Your task to perform on an android device: open app "HBO Max: Stream TV & Movies" (install if not already installed) Image 0: 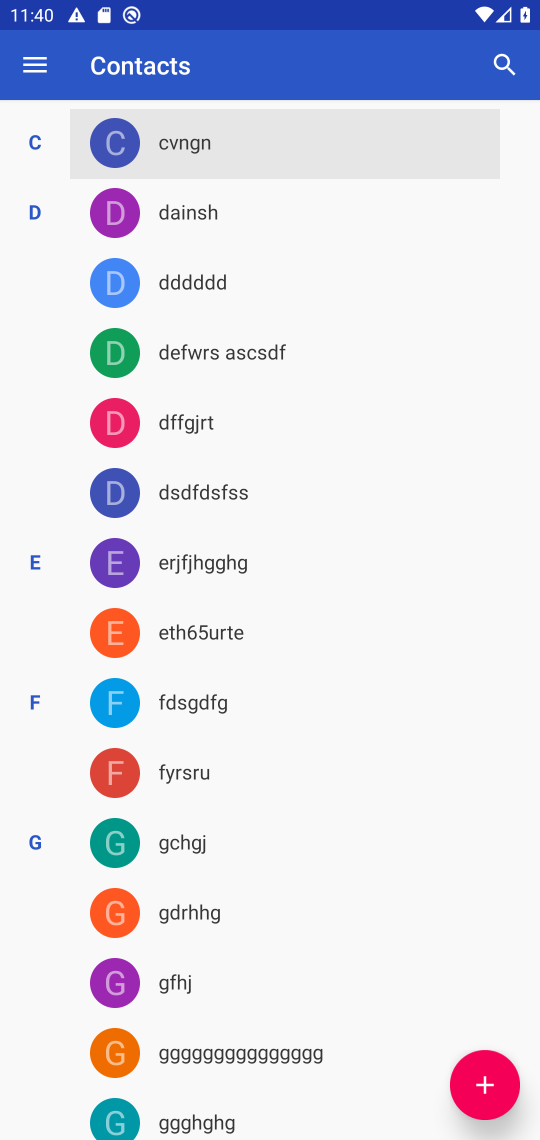
Step 0: press home button
Your task to perform on an android device: open app "HBO Max: Stream TV & Movies" (install if not already installed) Image 1: 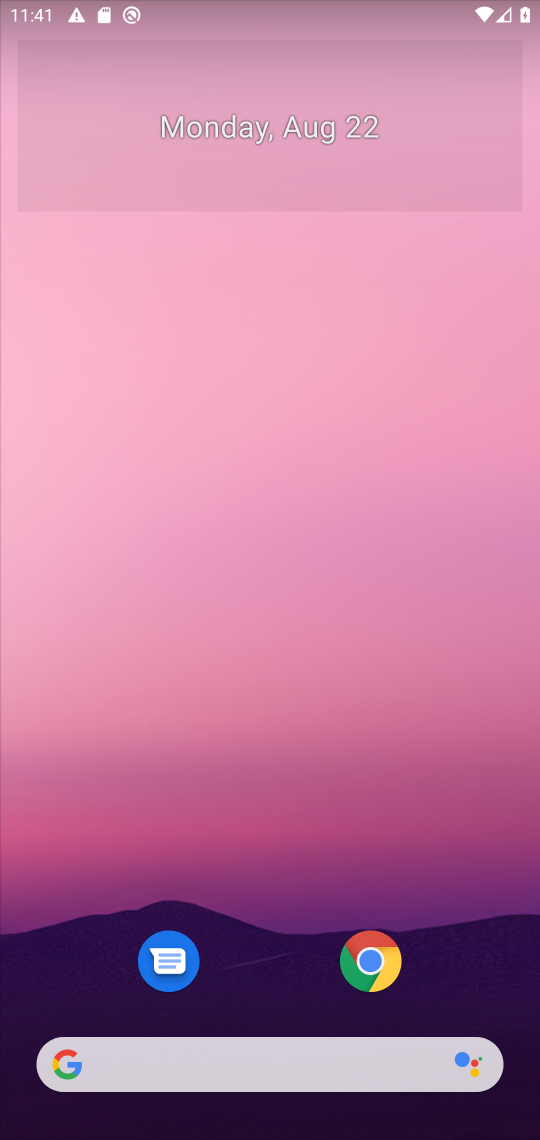
Step 1: drag from (272, 1025) to (333, 281)
Your task to perform on an android device: open app "HBO Max: Stream TV & Movies" (install if not already installed) Image 2: 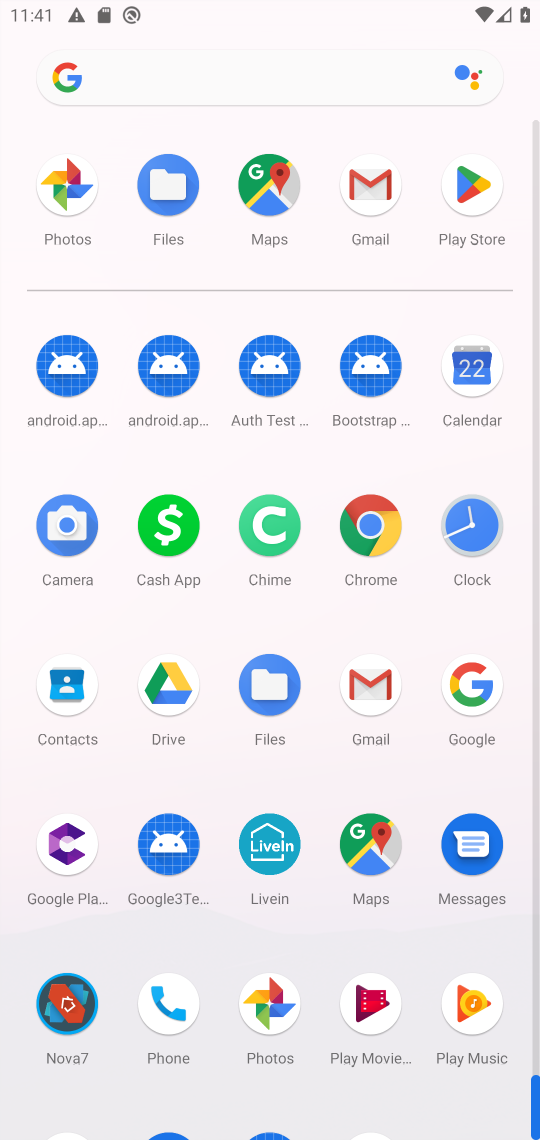
Step 2: click (463, 231)
Your task to perform on an android device: open app "HBO Max: Stream TV & Movies" (install if not already installed) Image 3: 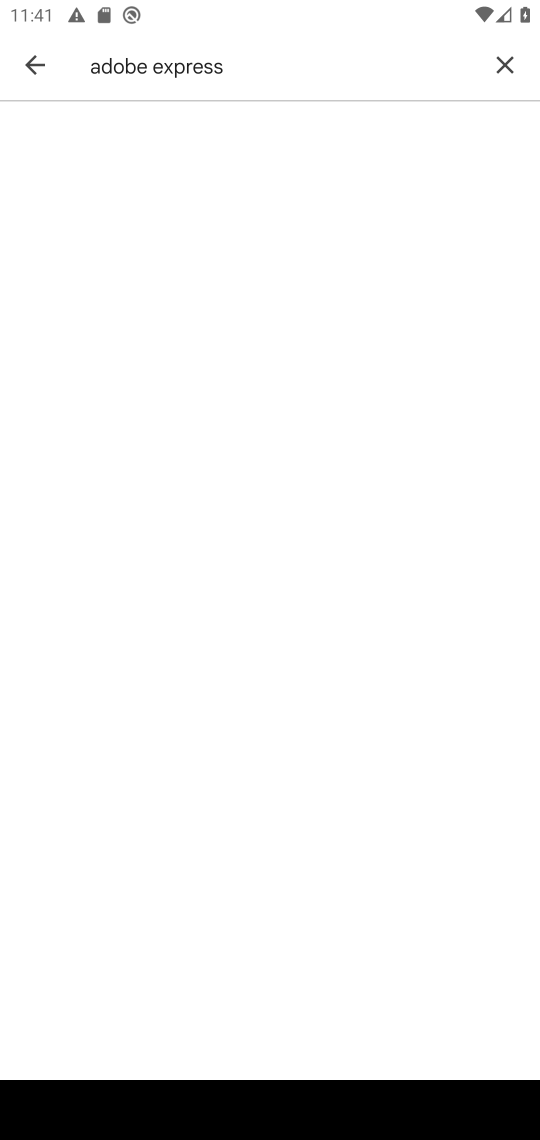
Step 3: click (479, 84)
Your task to perform on an android device: open app "HBO Max: Stream TV & Movies" (install if not already installed) Image 4: 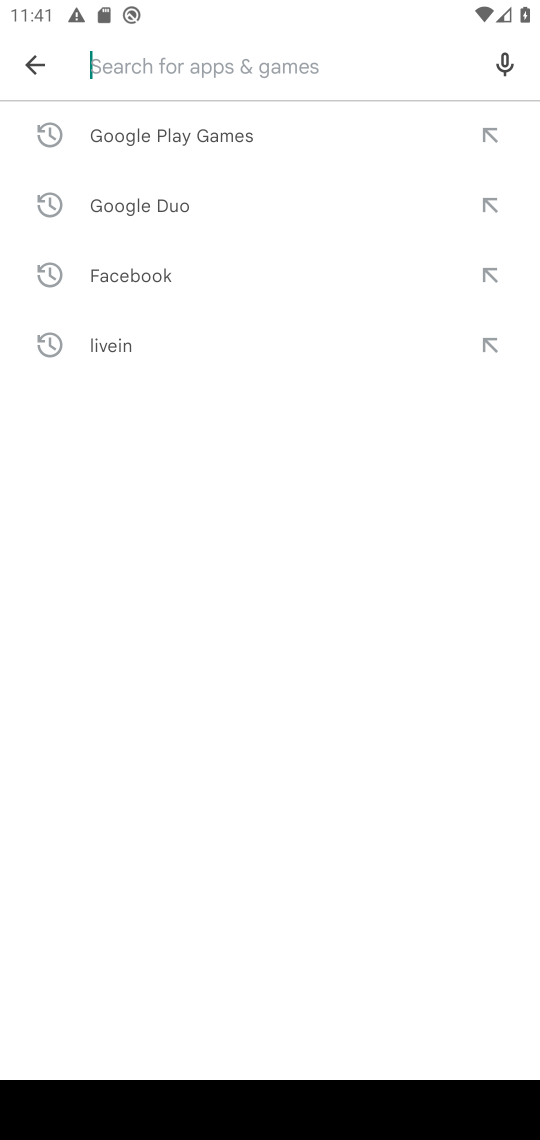
Step 4: click (488, 77)
Your task to perform on an android device: open app "HBO Max: Stream TV & Movies" (install if not already installed) Image 5: 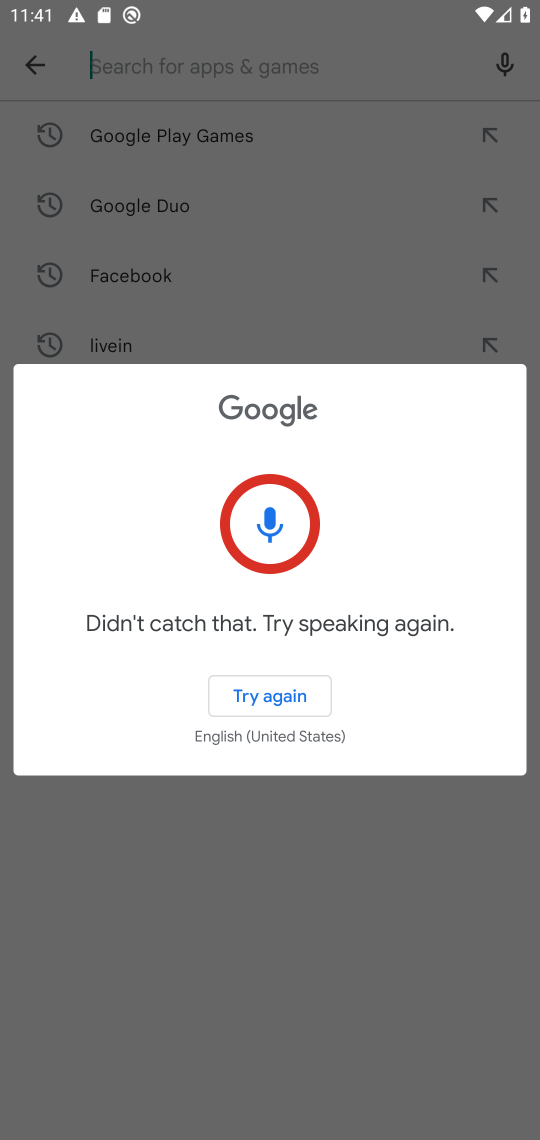
Step 5: type "h"
Your task to perform on an android device: open app "HBO Max: Stream TV & Movies" (install if not already installed) Image 6: 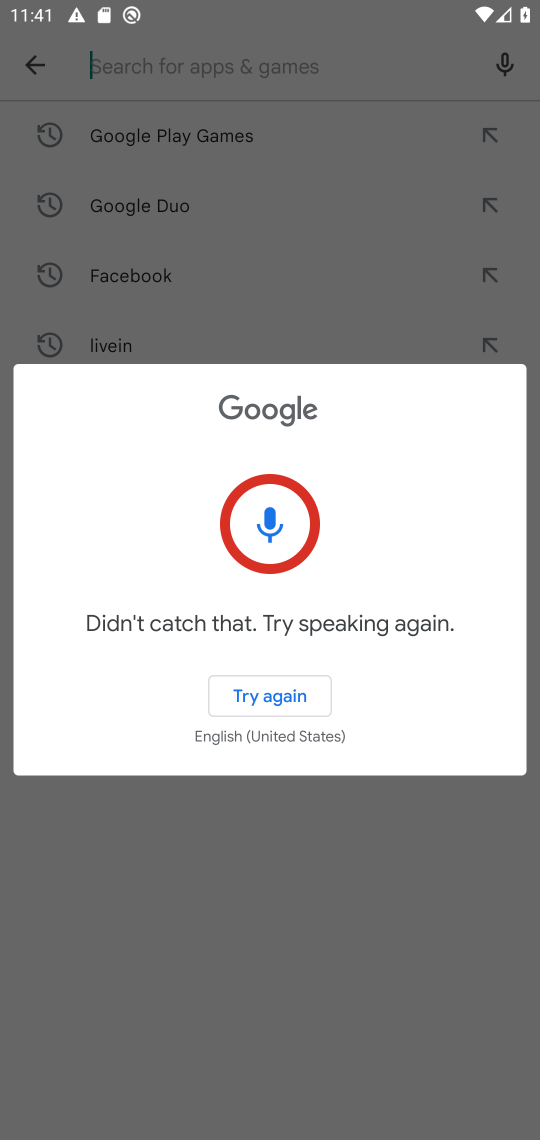
Step 6: click (229, 866)
Your task to perform on an android device: open app "HBO Max: Stream TV & Movies" (install if not already installed) Image 7: 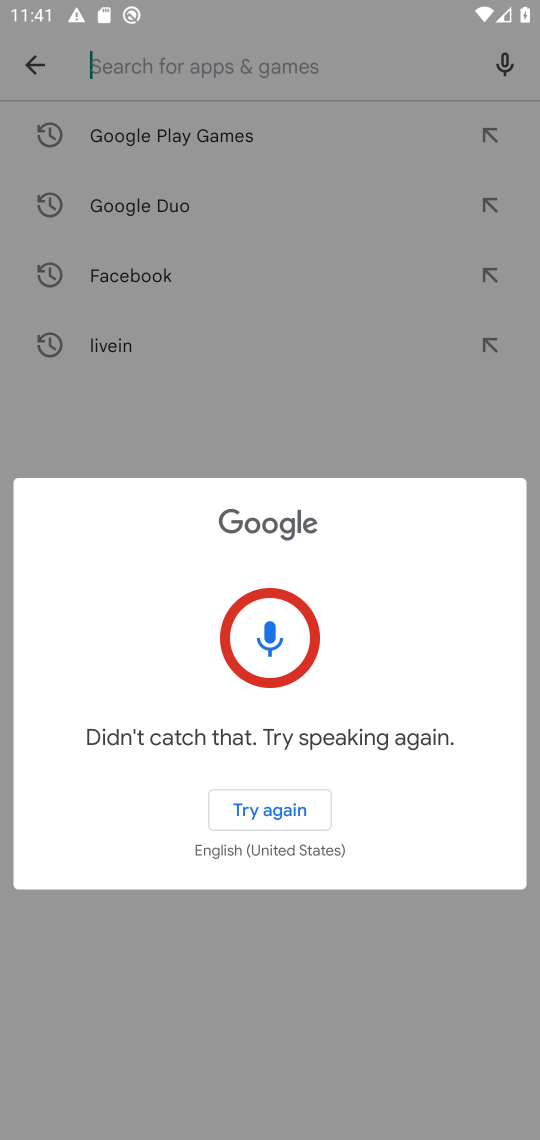
Step 7: click (229, 866)
Your task to perform on an android device: open app "HBO Max: Stream TV & Movies" (install if not already installed) Image 8: 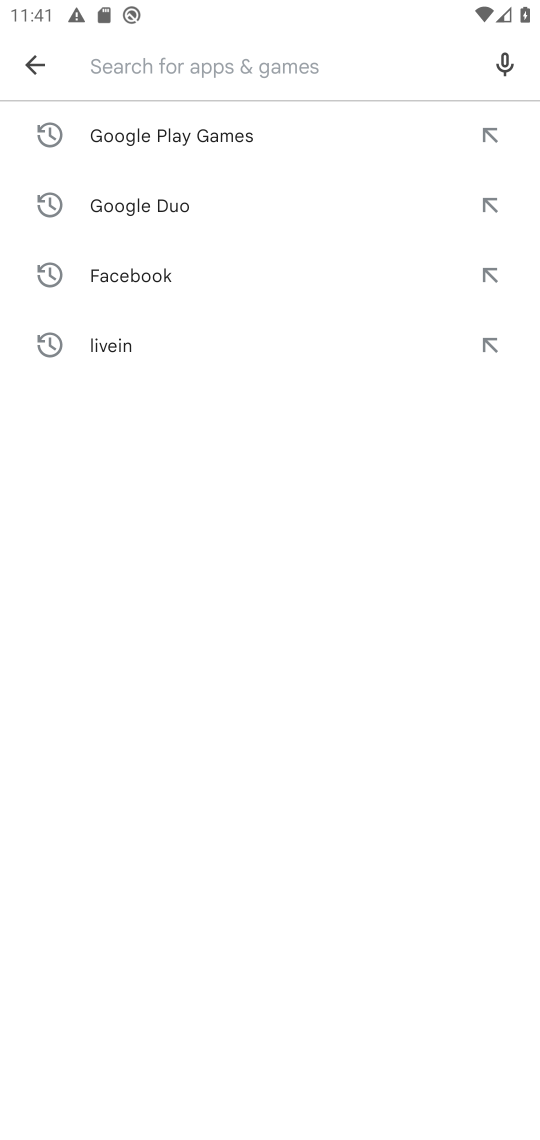
Step 8: click (229, 866)
Your task to perform on an android device: open app "HBO Max: Stream TV & Movies" (install if not already installed) Image 9: 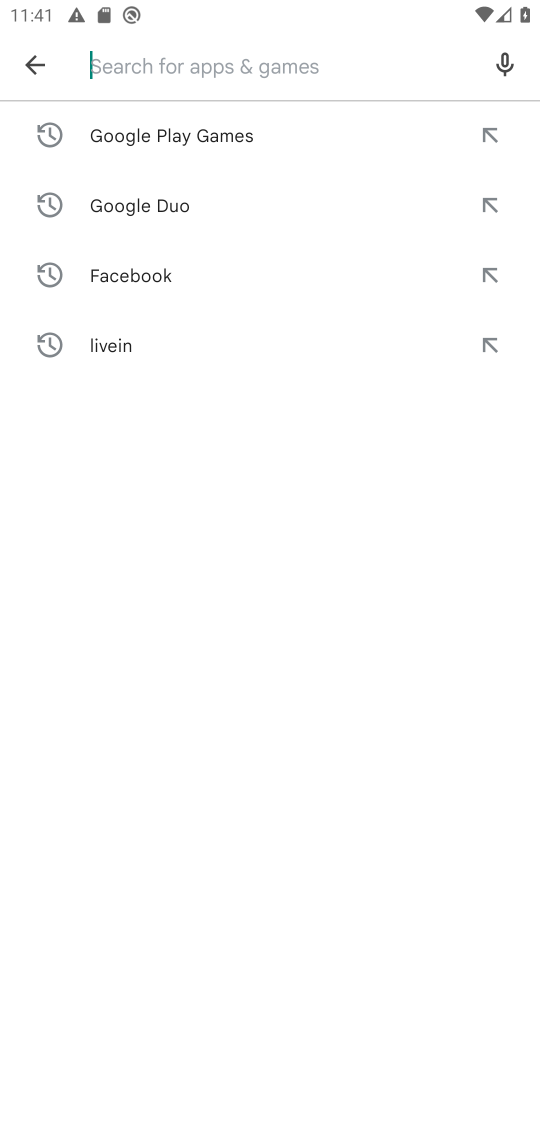
Step 9: type "hbo"
Your task to perform on an android device: open app "HBO Max: Stream TV & Movies" (install if not already installed) Image 10: 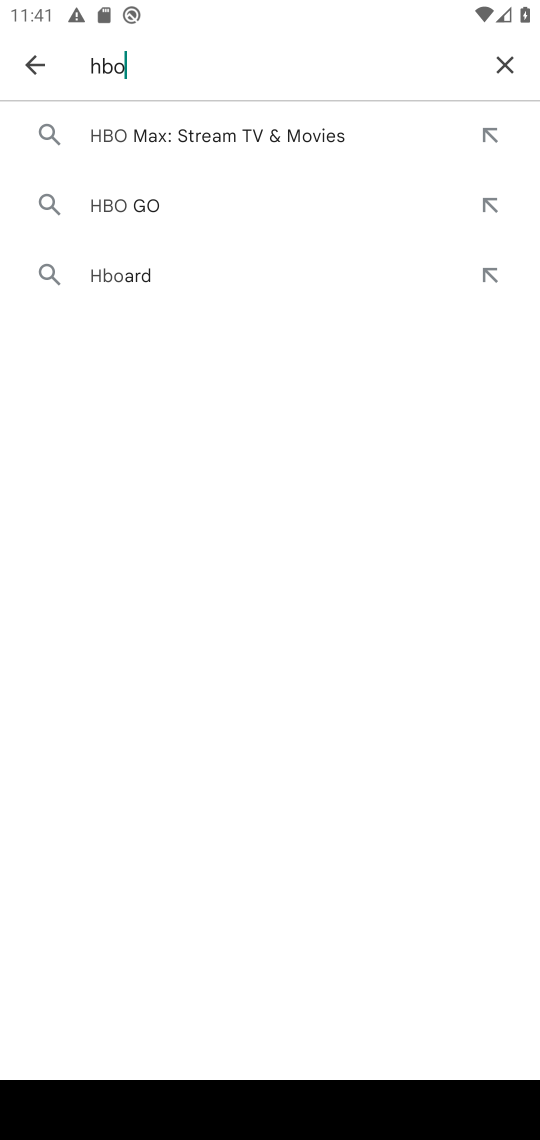
Step 10: click (387, 143)
Your task to perform on an android device: open app "HBO Max: Stream TV & Movies" (install if not already installed) Image 11: 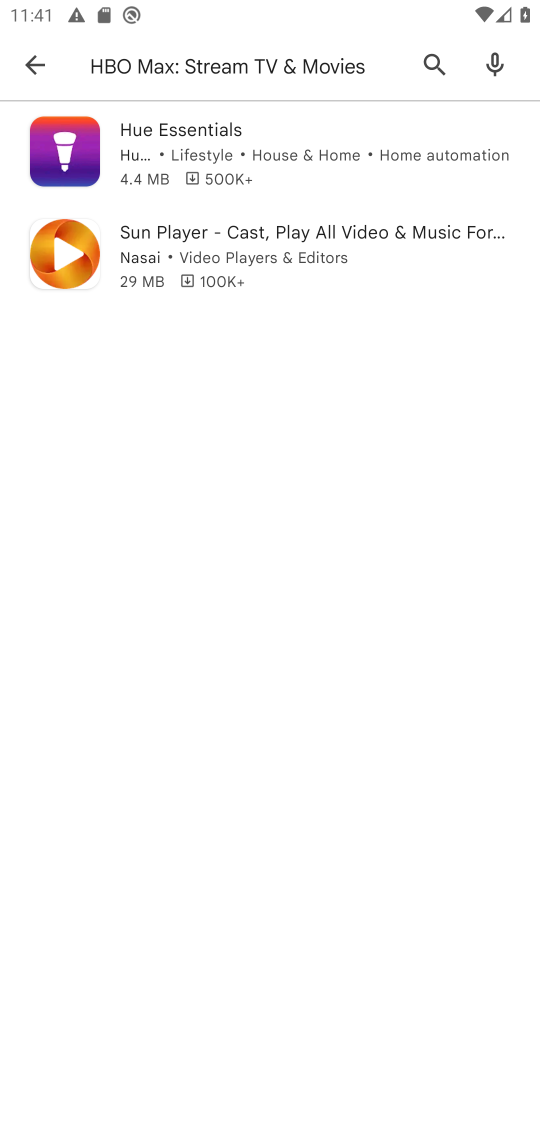
Step 11: task complete